Your task to perform on an android device: turn off location history Image 0: 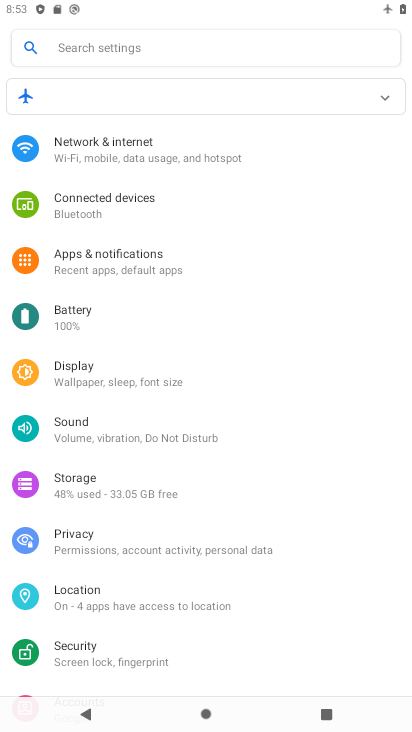
Step 0: press home button
Your task to perform on an android device: turn off location history Image 1: 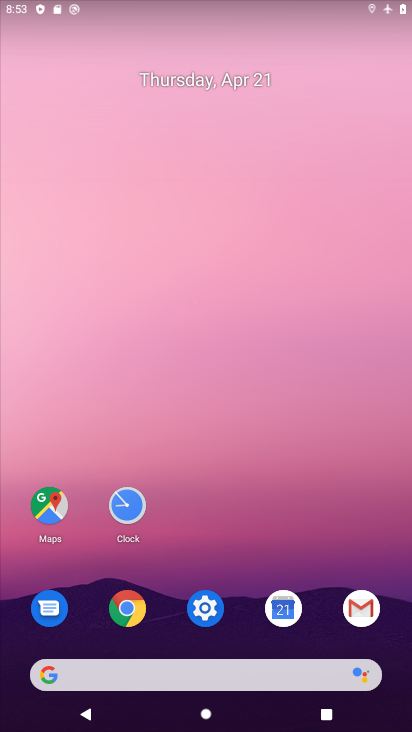
Step 1: click (47, 505)
Your task to perform on an android device: turn off location history Image 2: 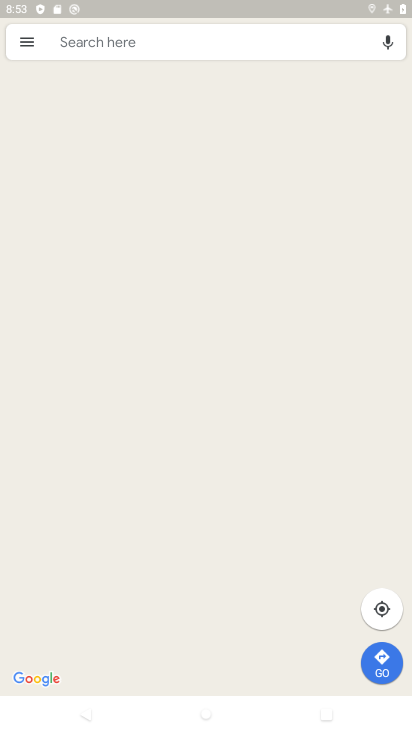
Step 2: click (24, 41)
Your task to perform on an android device: turn off location history Image 3: 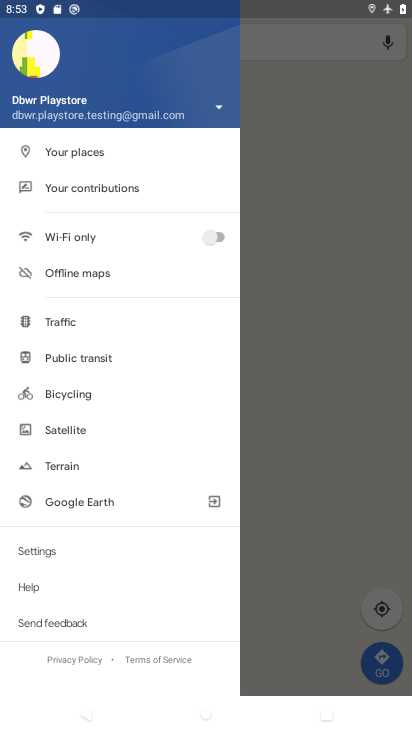
Step 3: click (109, 271)
Your task to perform on an android device: turn off location history Image 4: 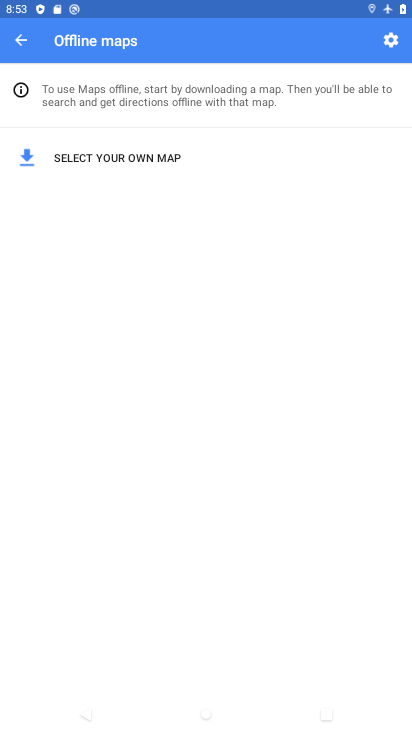
Step 4: task complete